Your task to perform on an android device: empty trash in the gmail app Image 0: 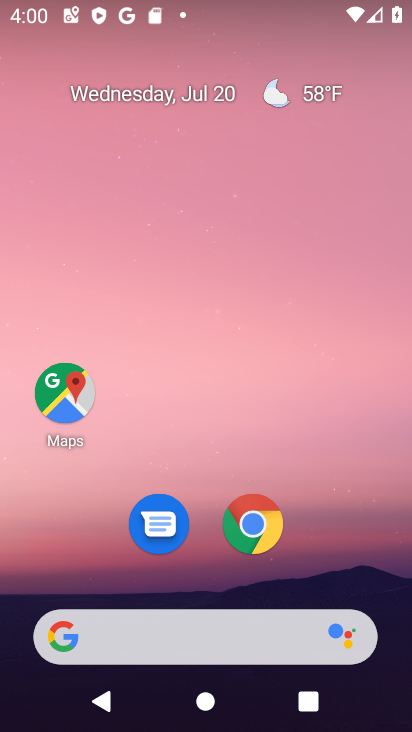
Step 0: drag from (325, 554) to (305, 106)
Your task to perform on an android device: empty trash in the gmail app Image 1: 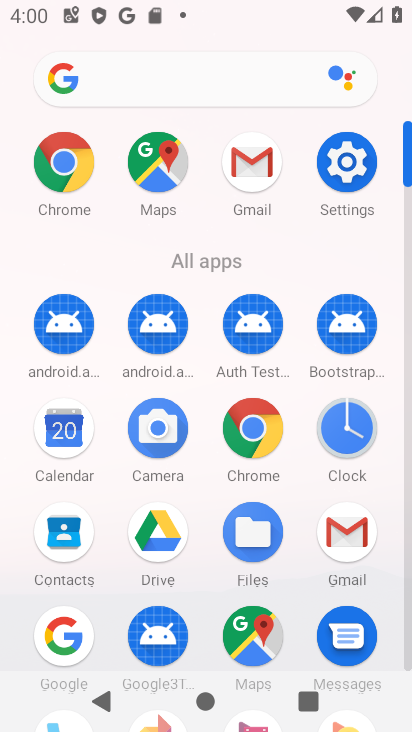
Step 1: click (249, 165)
Your task to perform on an android device: empty trash in the gmail app Image 2: 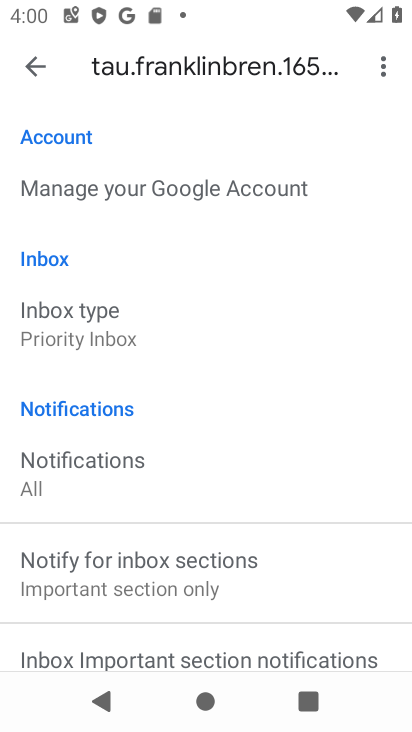
Step 2: drag from (251, 548) to (272, 148)
Your task to perform on an android device: empty trash in the gmail app Image 3: 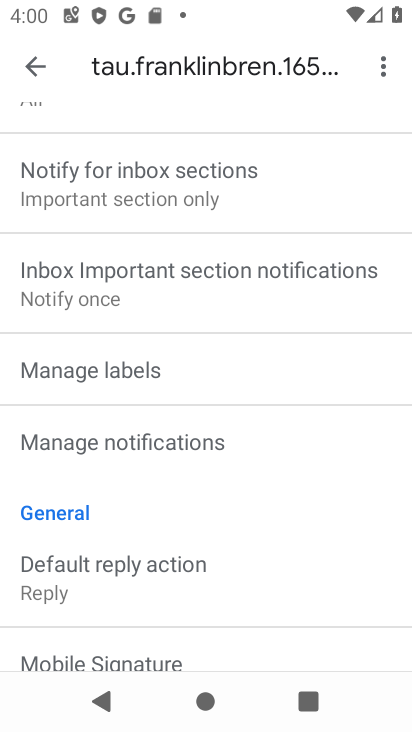
Step 3: click (34, 65)
Your task to perform on an android device: empty trash in the gmail app Image 4: 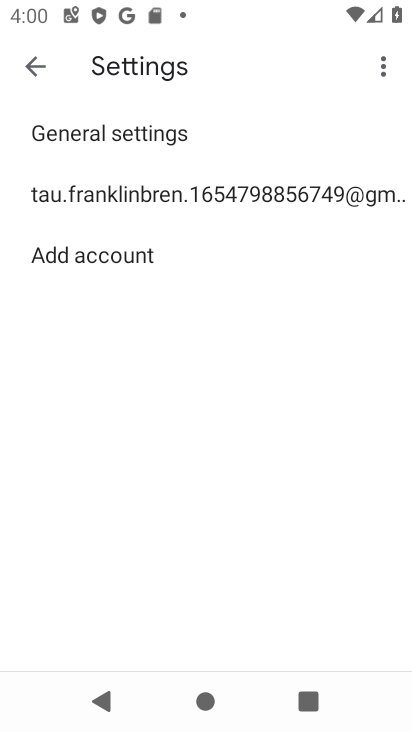
Step 4: click (46, 62)
Your task to perform on an android device: empty trash in the gmail app Image 5: 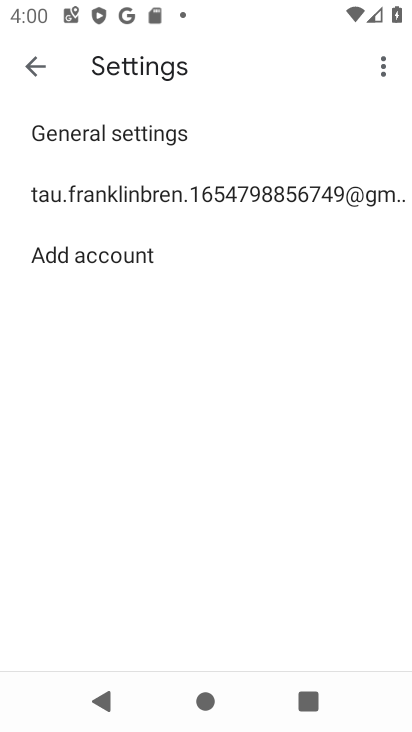
Step 5: click (25, 64)
Your task to perform on an android device: empty trash in the gmail app Image 6: 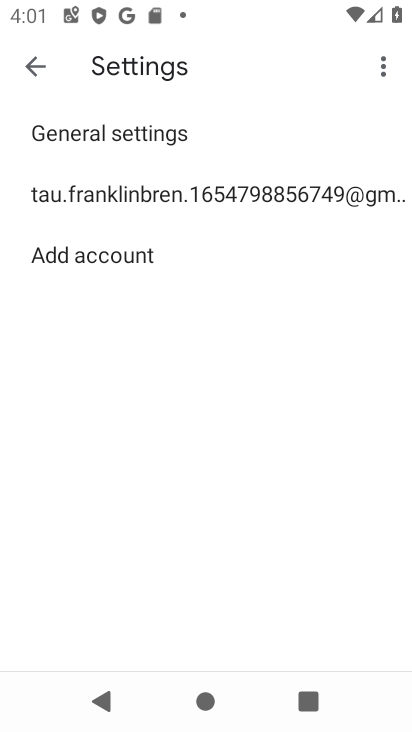
Step 6: click (37, 63)
Your task to perform on an android device: empty trash in the gmail app Image 7: 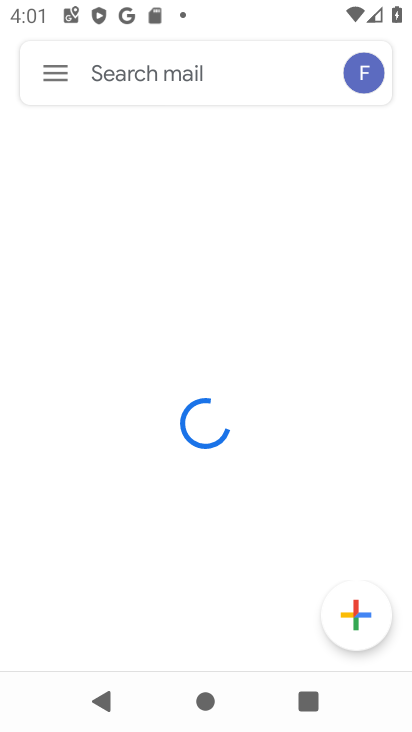
Step 7: click (53, 72)
Your task to perform on an android device: empty trash in the gmail app Image 8: 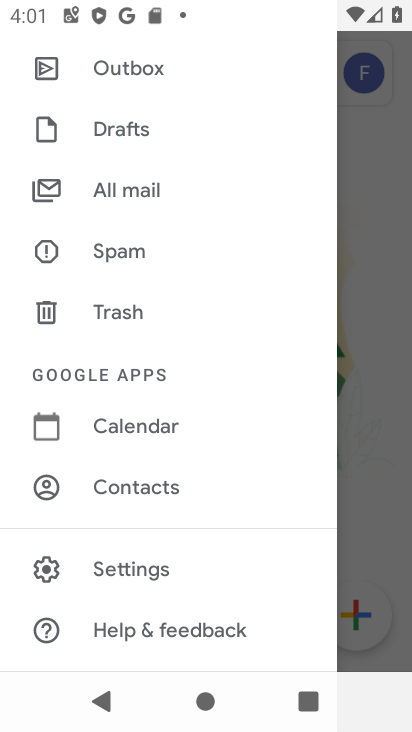
Step 8: click (112, 315)
Your task to perform on an android device: empty trash in the gmail app Image 9: 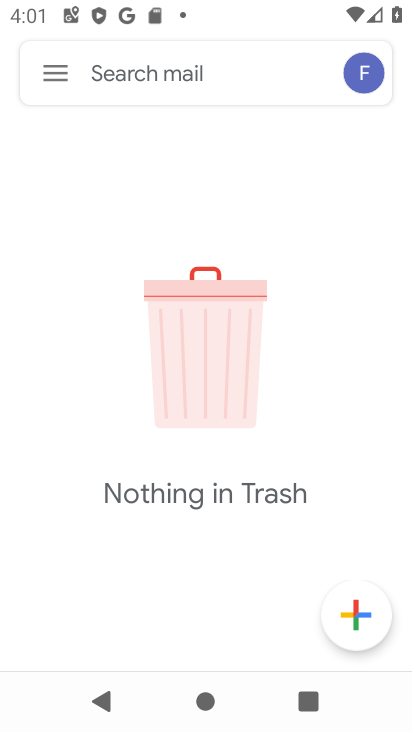
Step 9: task complete